Your task to perform on an android device: Go to accessibility settings Image 0: 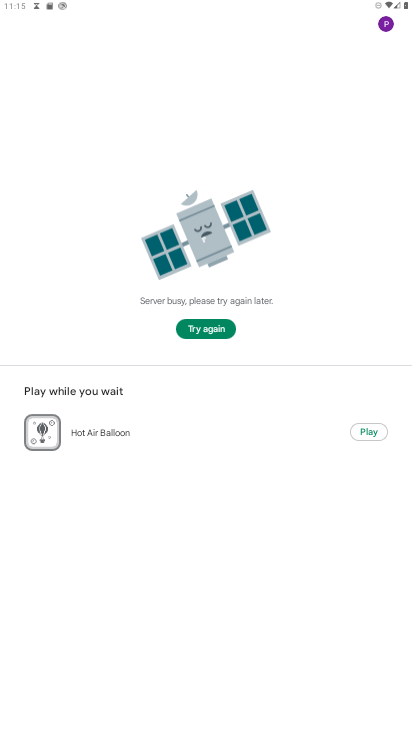
Step 0: press home button
Your task to perform on an android device: Go to accessibility settings Image 1: 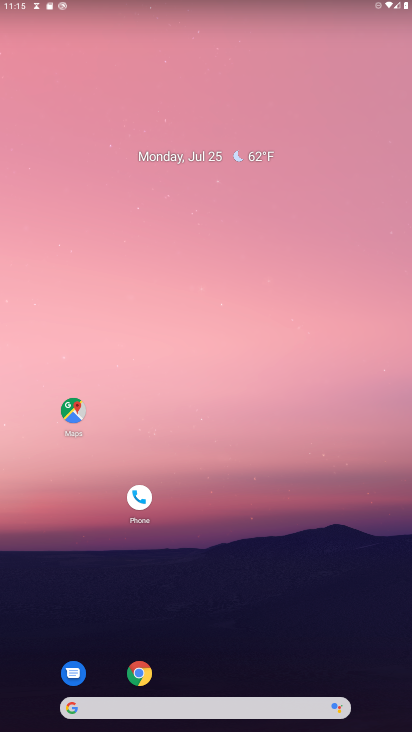
Step 1: drag from (303, 610) to (309, 102)
Your task to perform on an android device: Go to accessibility settings Image 2: 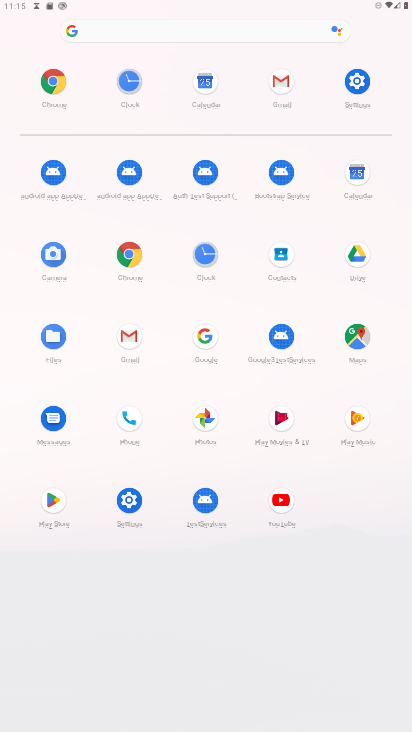
Step 2: click (358, 84)
Your task to perform on an android device: Go to accessibility settings Image 3: 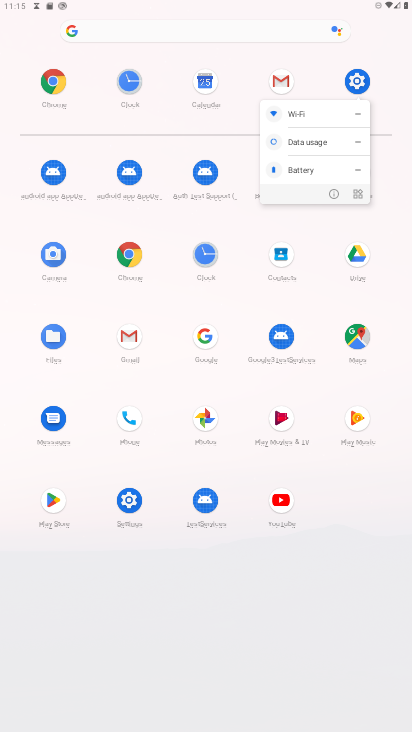
Step 3: click (366, 80)
Your task to perform on an android device: Go to accessibility settings Image 4: 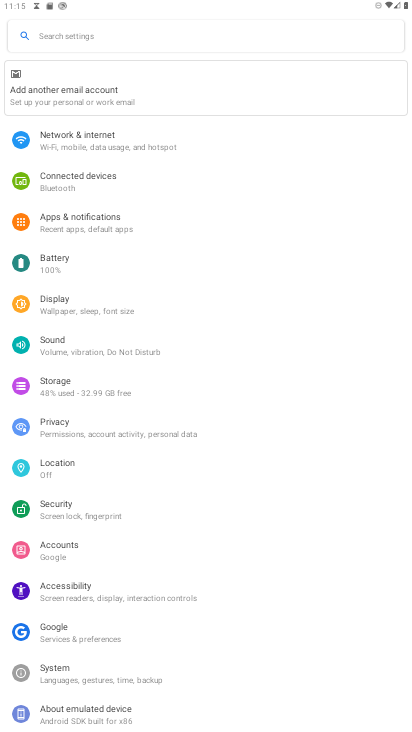
Step 4: click (73, 594)
Your task to perform on an android device: Go to accessibility settings Image 5: 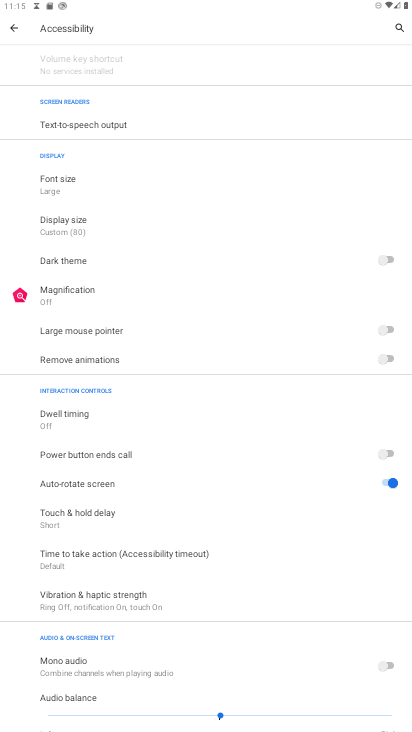
Step 5: task complete